Your task to perform on an android device: find which apps use the phone's location Image 0: 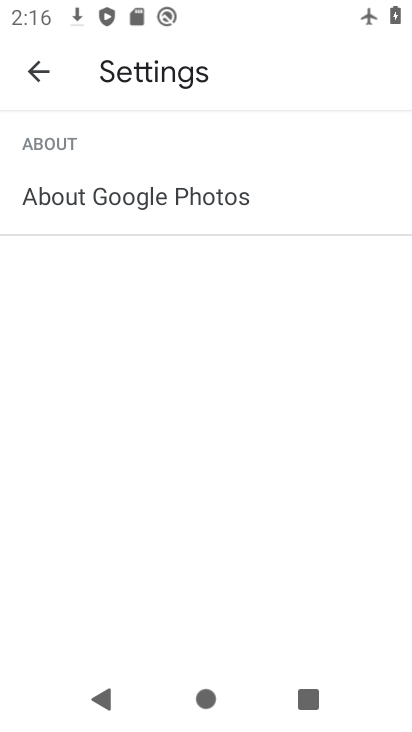
Step 0: press home button
Your task to perform on an android device: find which apps use the phone's location Image 1: 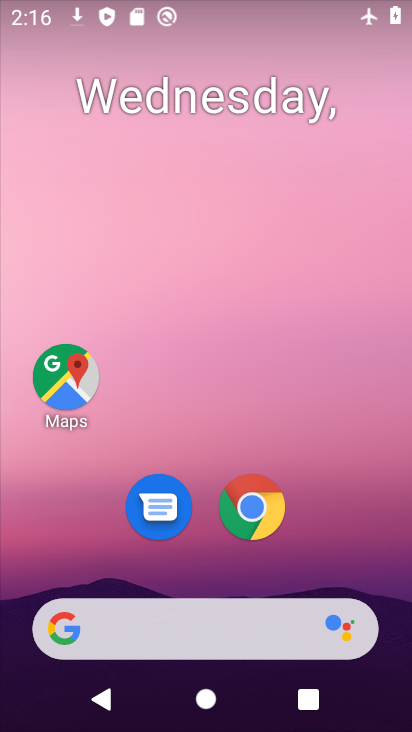
Step 1: drag from (351, 513) to (318, 180)
Your task to perform on an android device: find which apps use the phone's location Image 2: 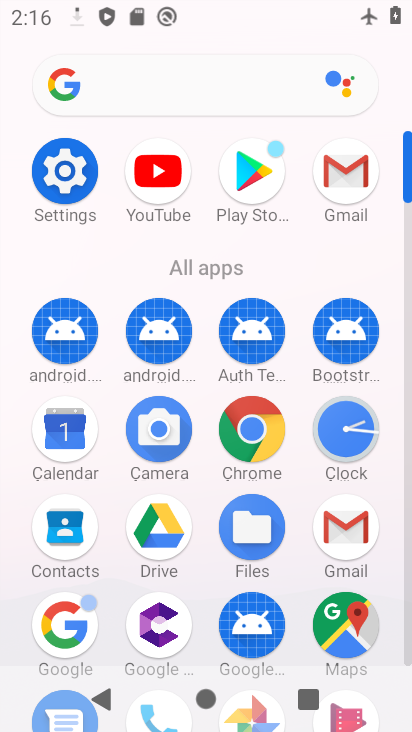
Step 2: click (47, 179)
Your task to perform on an android device: find which apps use the phone's location Image 3: 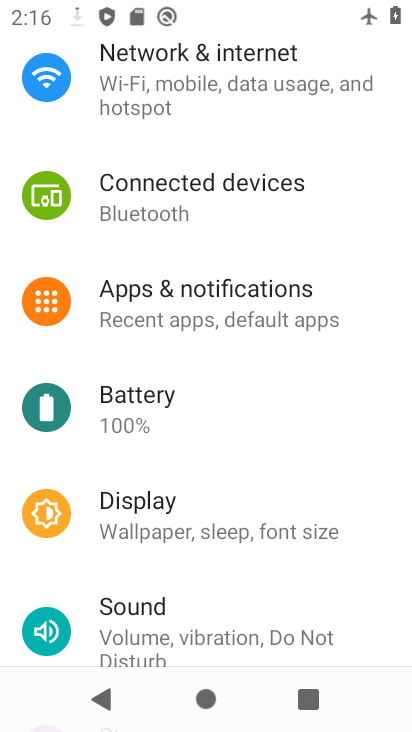
Step 3: drag from (209, 513) to (202, 286)
Your task to perform on an android device: find which apps use the phone's location Image 4: 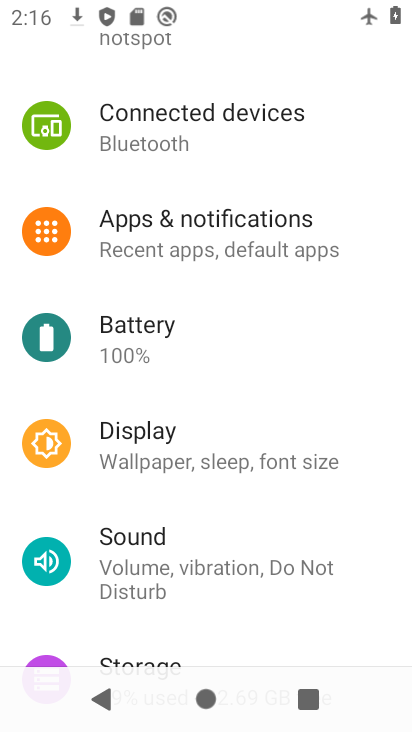
Step 4: drag from (220, 590) to (206, 340)
Your task to perform on an android device: find which apps use the phone's location Image 5: 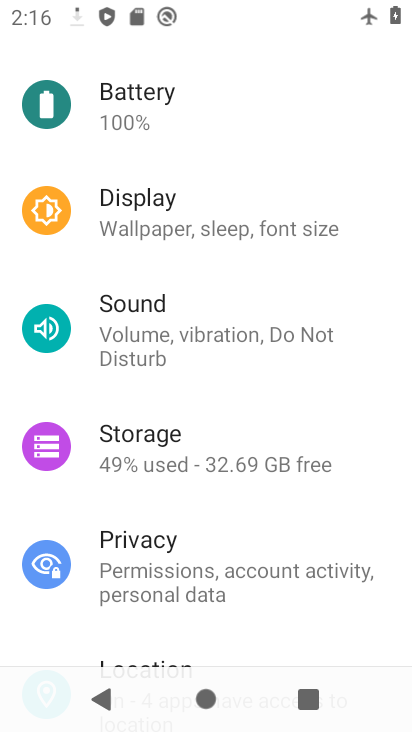
Step 5: drag from (218, 480) to (215, 332)
Your task to perform on an android device: find which apps use the phone's location Image 6: 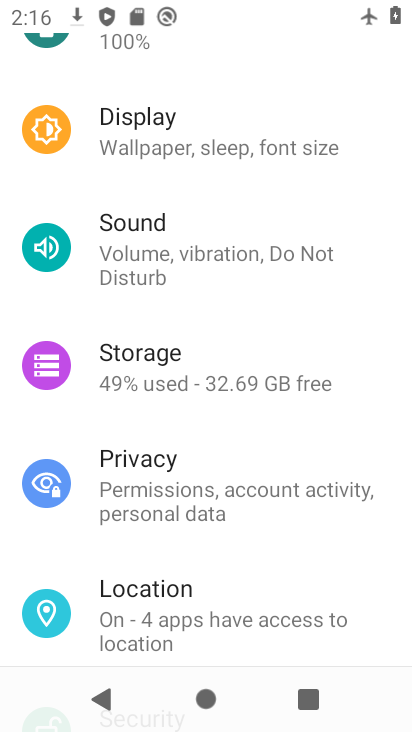
Step 6: click (193, 628)
Your task to perform on an android device: find which apps use the phone's location Image 7: 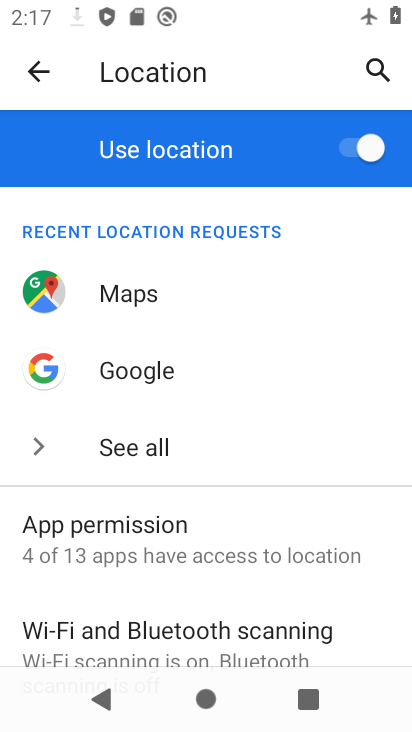
Step 7: click (178, 536)
Your task to perform on an android device: find which apps use the phone's location Image 8: 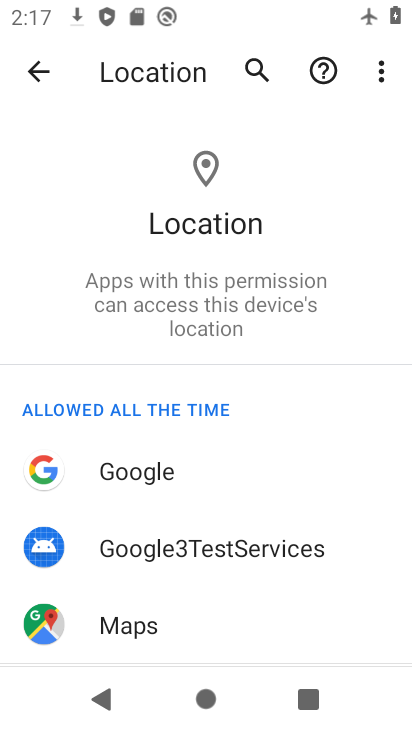
Step 8: task complete